Your task to perform on an android device: turn on sleep mode Image 0: 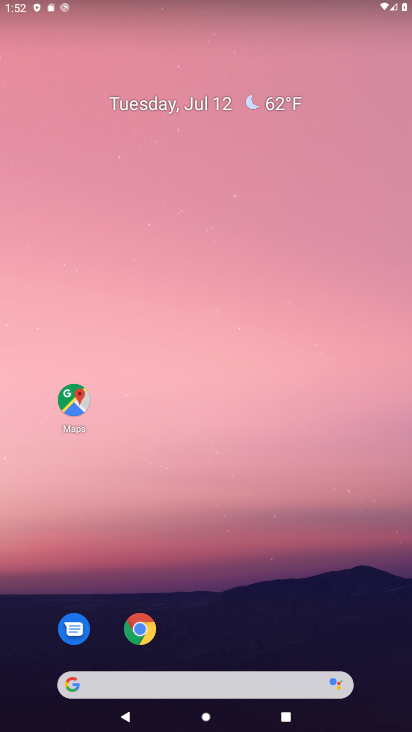
Step 0: press home button
Your task to perform on an android device: turn on sleep mode Image 1: 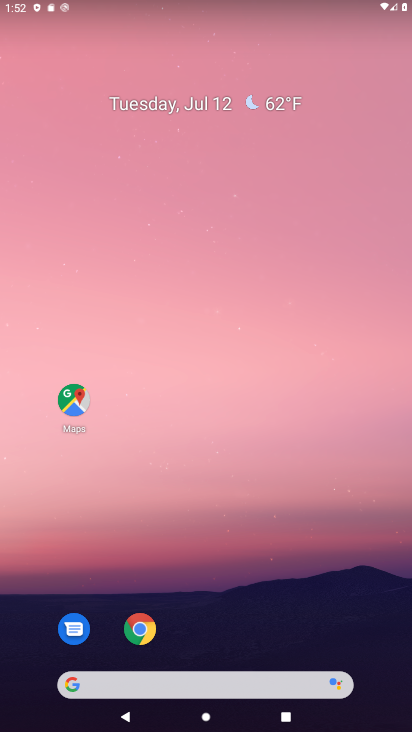
Step 1: drag from (219, 645) to (217, 24)
Your task to perform on an android device: turn on sleep mode Image 2: 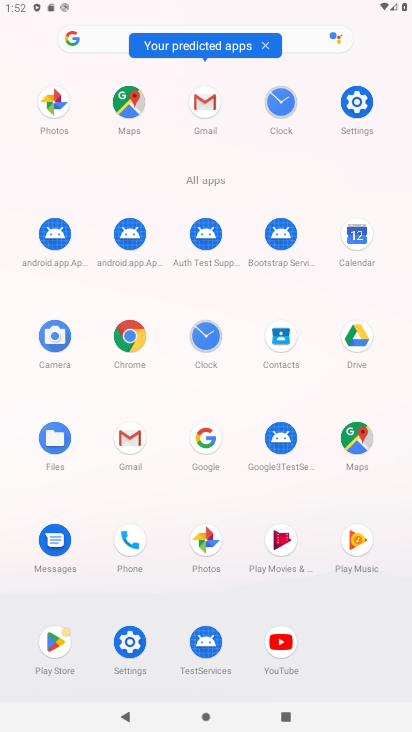
Step 2: click (360, 96)
Your task to perform on an android device: turn on sleep mode Image 3: 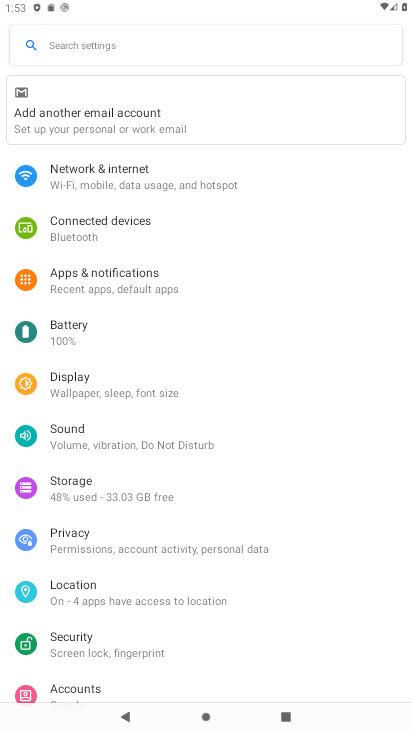
Step 3: click (94, 379)
Your task to perform on an android device: turn on sleep mode Image 4: 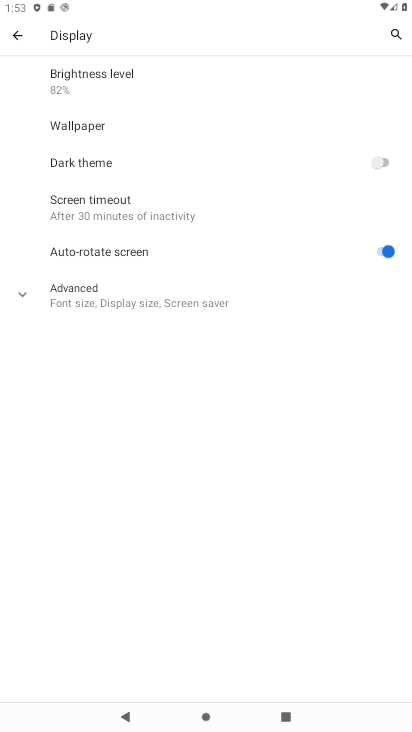
Step 4: click (24, 297)
Your task to perform on an android device: turn on sleep mode Image 5: 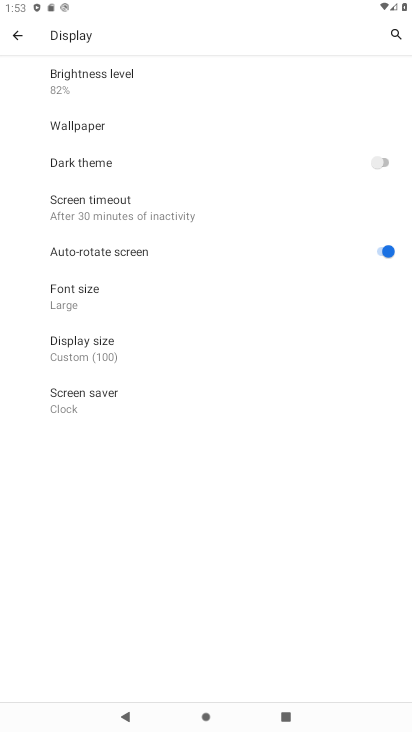
Step 5: task complete